Your task to perform on an android device: Open Maps and search for coffee Image 0: 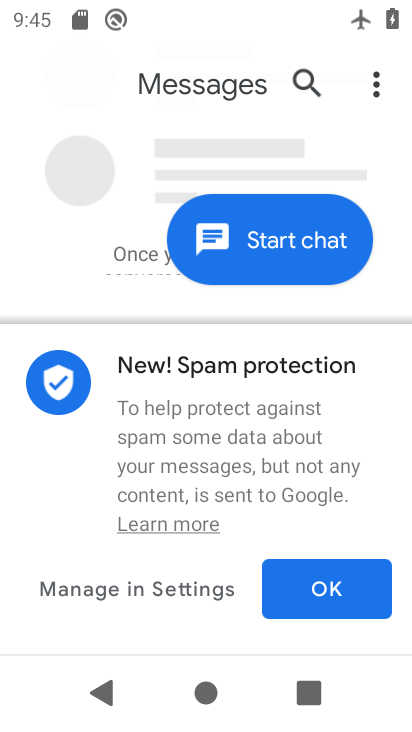
Step 0: press home button
Your task to perform on an android device: Open Maps and search for coffee Image 1: 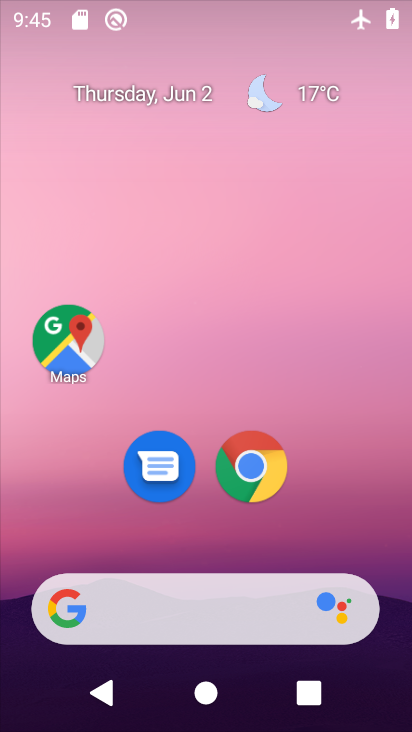
Step 1: drag from (215, 573) to (158, 236)
Your task to perform on an android device: Open Maps and search for coffee Image 2: 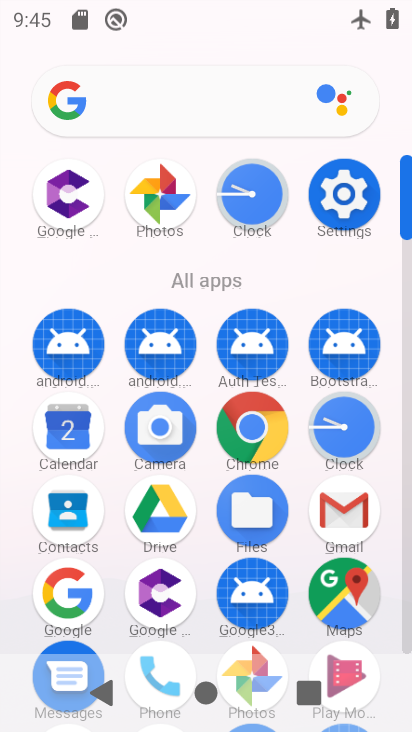
Step 2: click (319, 589)
Your task to perform on an android device: Open Maps and search for coffee Image 3: 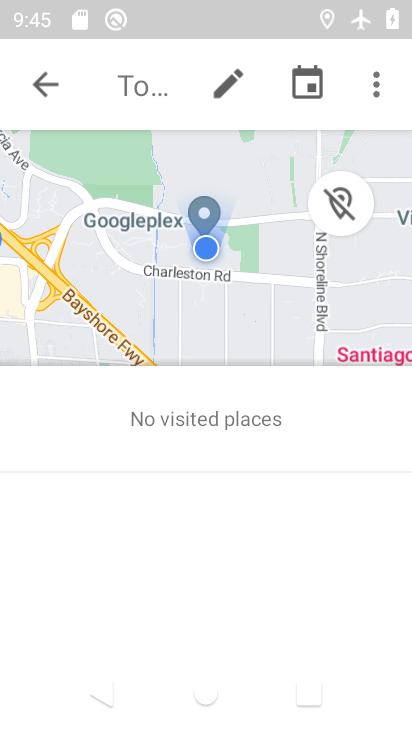
Step 3: click (38, 86)
Your task to perform on an android device: Open Maps and search for coffee Image 4: 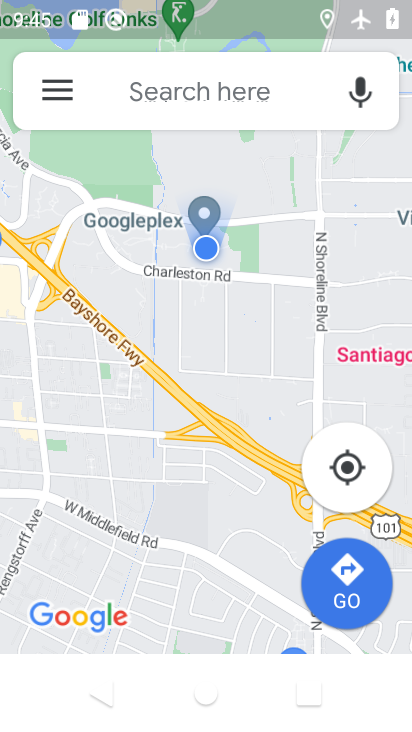
Step 4: click (244, 74)
Your task to perform on an android device: Open Maps and search for coffee Image 5: 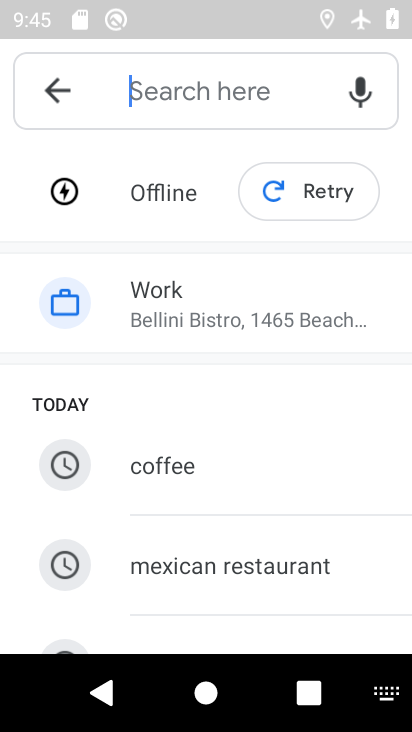
Step 5: click (187, 454)
Your task to perform on an android device: Open Maps and search for coffee Image 6: 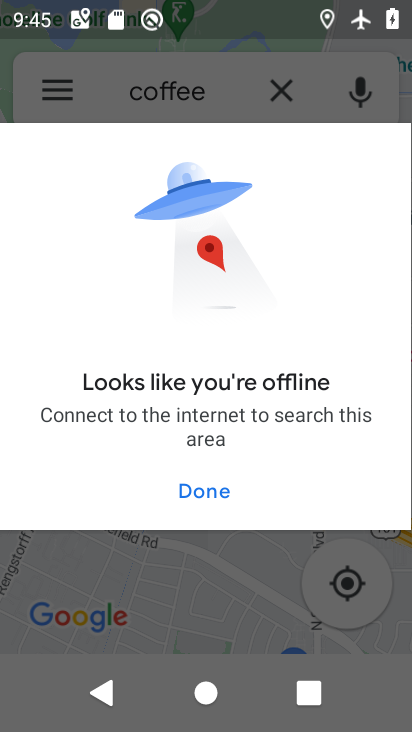
Step 6: click (179, 480)
Your task to perform on an android device: Open Maps and search for coffee Image 7: 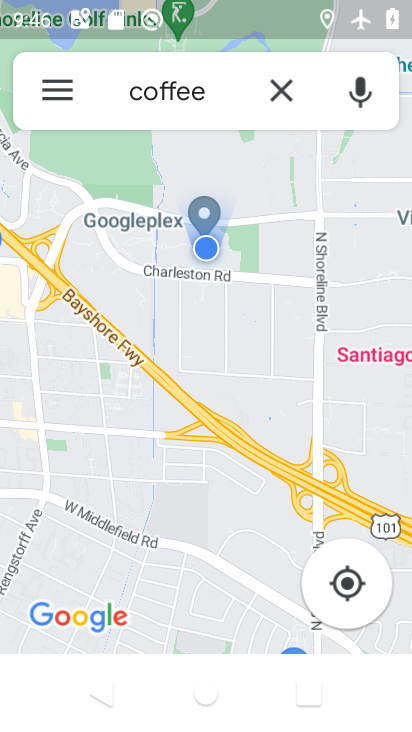
Step 7: task complete